Your task to perform on an android device: find photos in the google photos app Image 0: 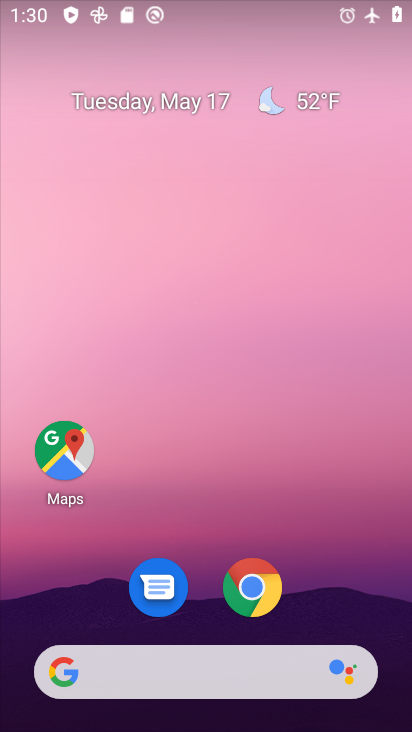
Step 0: drag from (393, 619) to (322, 211)
Your task to perform on an android device: find photos in the google photos app Image 1: 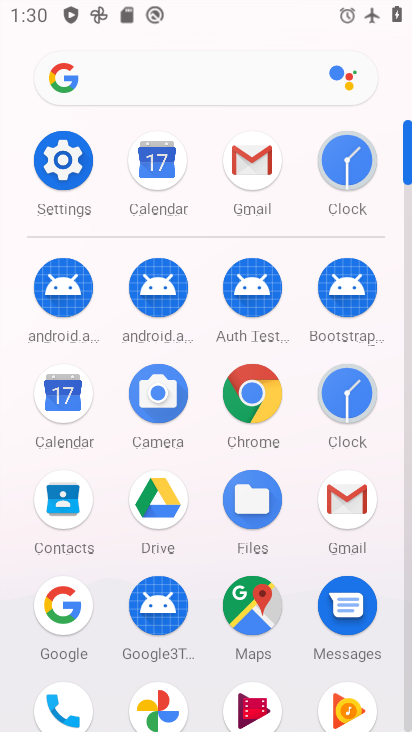
Step 1: click (150, 703)
Your task to perform on an android device: find photos in the google photos app Image 2: 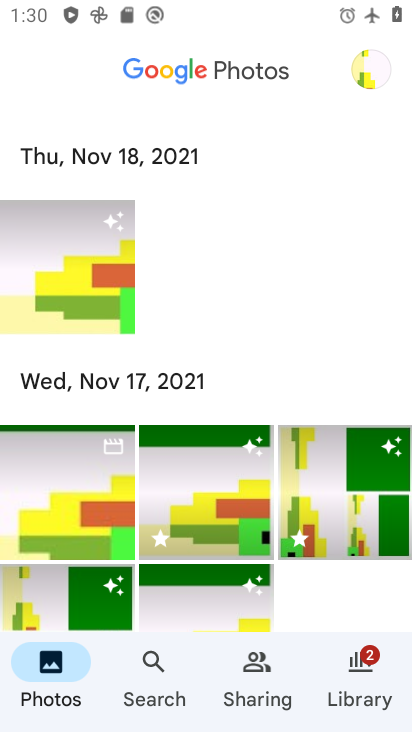
Step 2: click (350, 674)
Your task to perform on an android device: find photos in the google photos app Image 3: 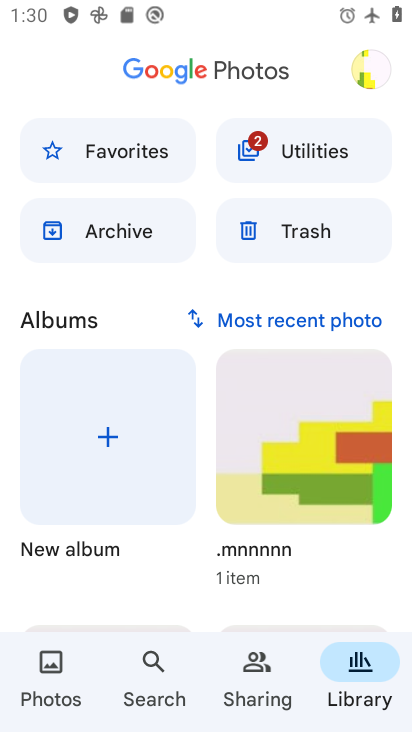
Step 3: click (111, 231)
Your task to perform on an android device: find photos in the google photos app Image 4: 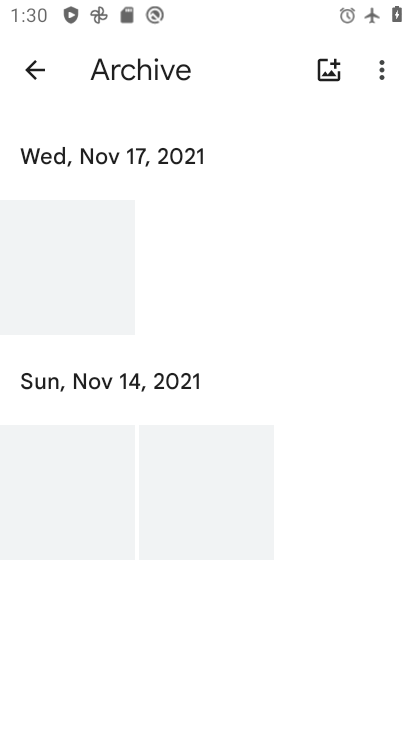
Step 4: task complete